Your task to perform on an android device: turn off notifications in google photos Image 0: 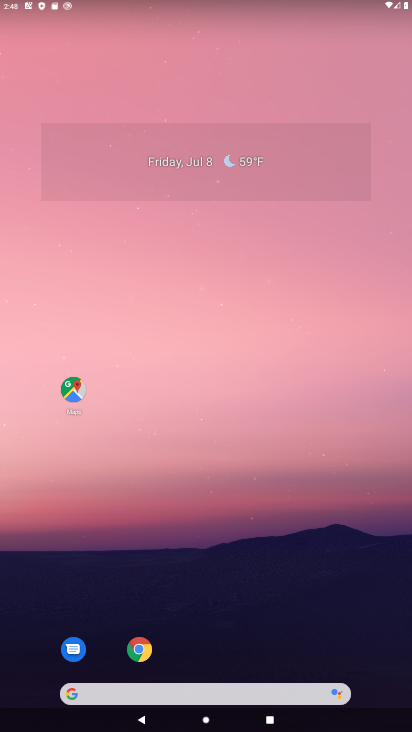
Step 0: drag from (297, 586) to (253, 134)
Your task to perform on an android device: turn off notifications in google photos Image 1: 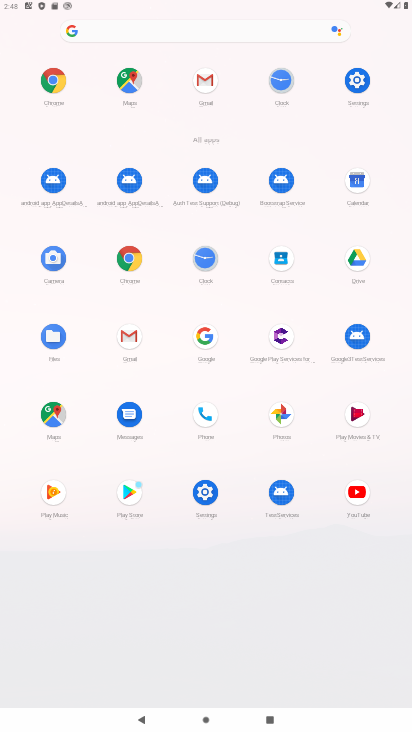
Step 1: click (288, 413)
Your task to perform on an android device: turn off notifications in google photos Image 2: 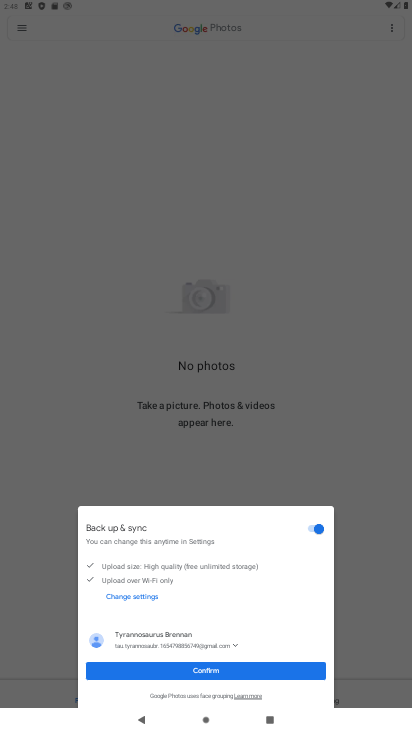
Step 2: click (180, 666)
Your task to perform on an android device: turn off notifications in google photos Image 3: 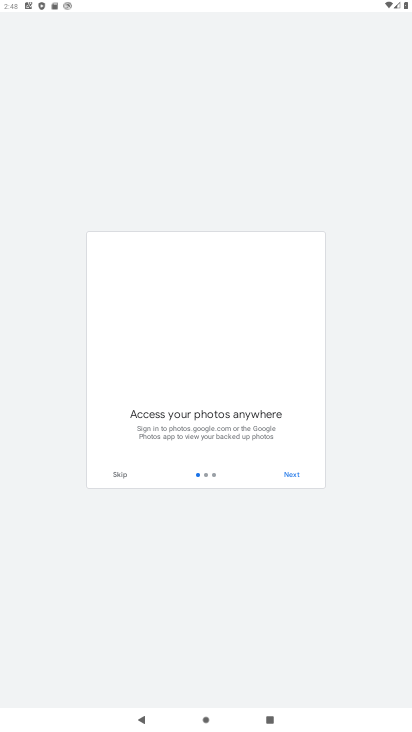
Step 3: click (292, 474)
Your task to perform on an android device: turn off notifications in google photos Image 4: 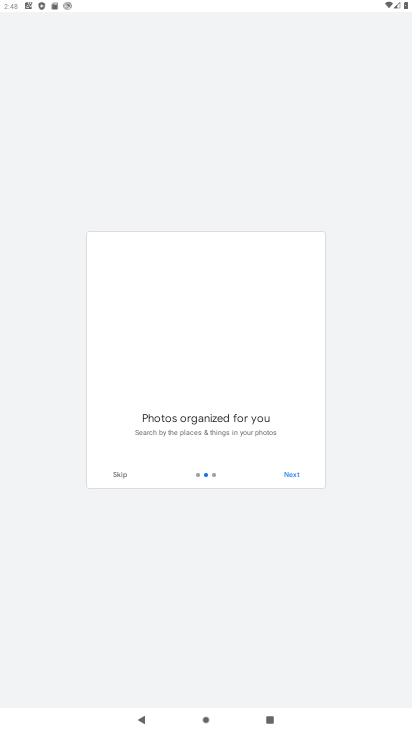
Step 4: click (292, 474)
Your task to perform on an android device: turn off notifications in google photos Image 5: 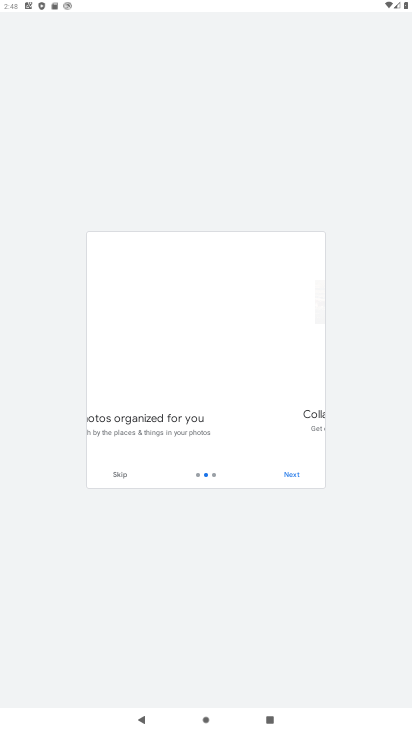
Step 5: click (292, 474)
Your task to perform on an android device: turn off notifications in google photos Image 6: 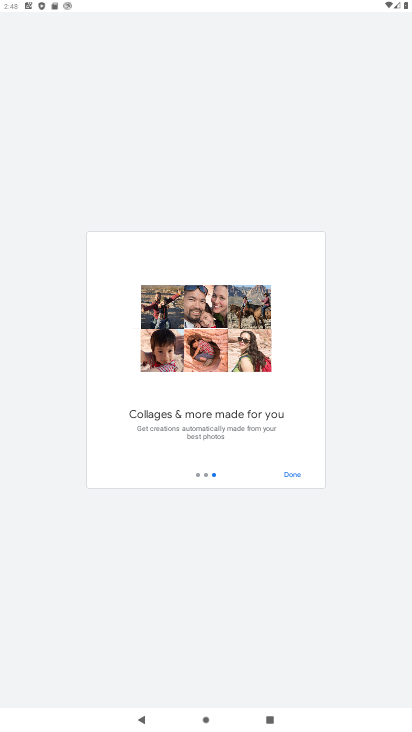
Step 6: click (292, 474)
Your task to perform on an android device: turn off notifications in google photos Image 7: 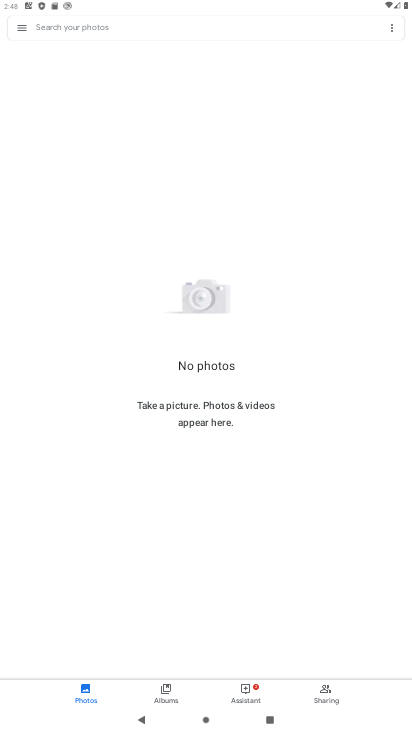
Step 7: click (292, 474)
Your task to perform on an android device: turn off notifications in google photos Image 8: 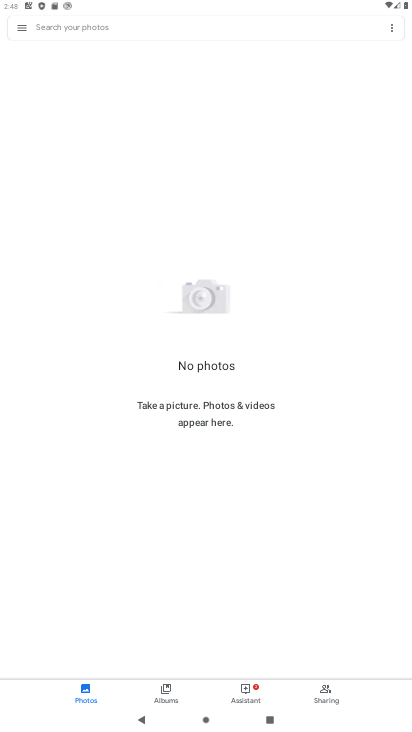
Step 8: click (20, 23)
Your task to perform on an android device: turn off notifications in google photos Image 9: 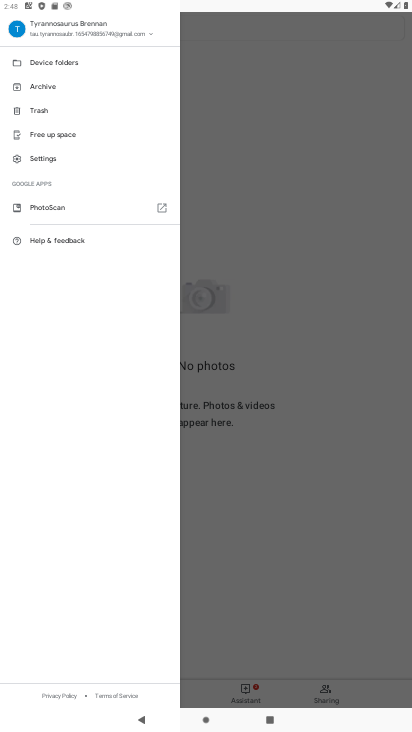
Step 9: click (45, 162)
Your task to perform on an android device: turn off notifications in google photos Image 10: 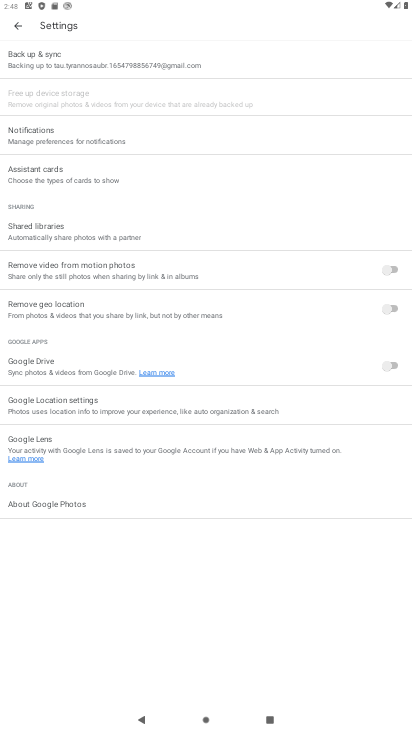
Step 10: click (98, 141)
Your task to perform on an android device: turn off notifications in google photos Image 11: 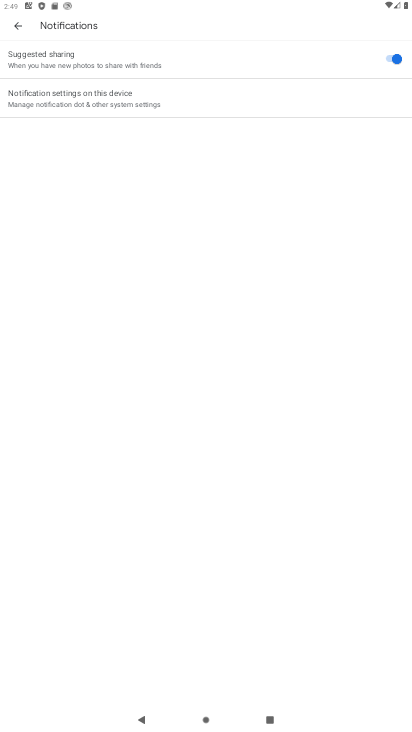
Step 11: click (169, 113)
Your task to perform on an android device: turn off notifications in google photos Image 12: 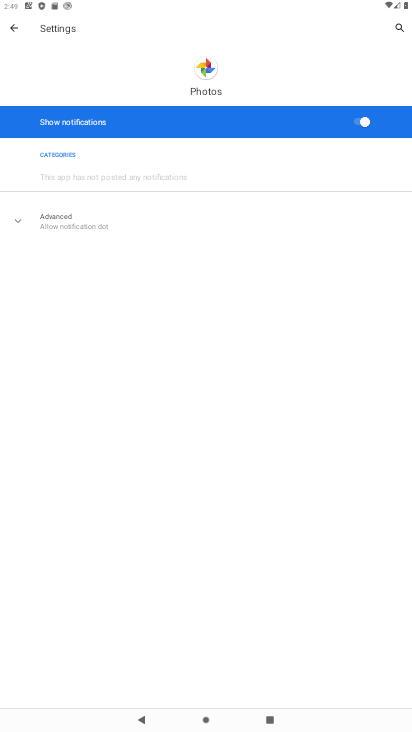
Step 12: click (357, 116)
Your task to perform on an android device: turn off notifications in google photos Image 13: 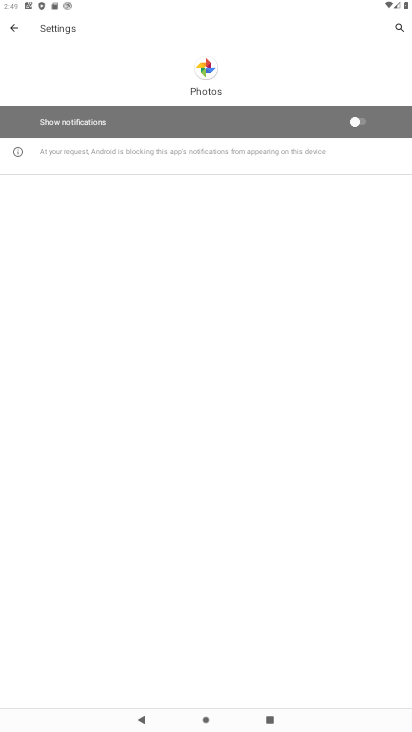
Step 13: task complete